Your task to perform on an android device: Open display settings Image 0: 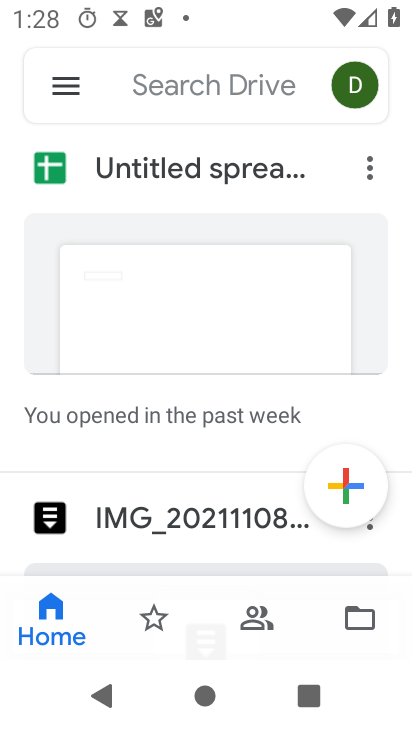
Step 0: press home button
Your task to perform on an android device: Open display settings Image 1: 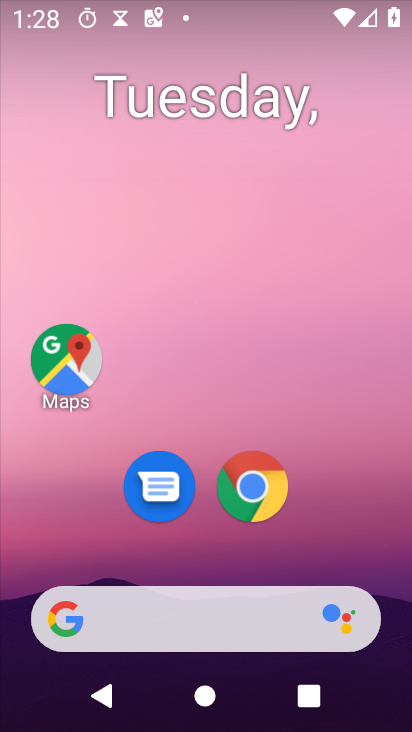
Step 1: drag from (358, 537) to (269, 144)
Your task to perform on an android device: Open display settings Image 2: 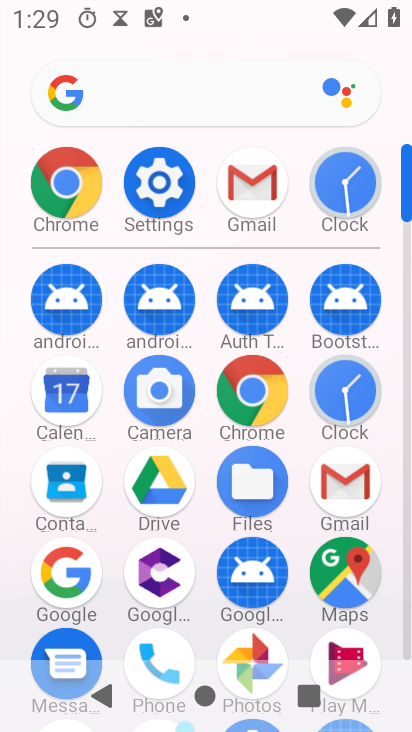
Step 2: click (142, 197)
Your task to perform on an android device: Open display settings Image 3: 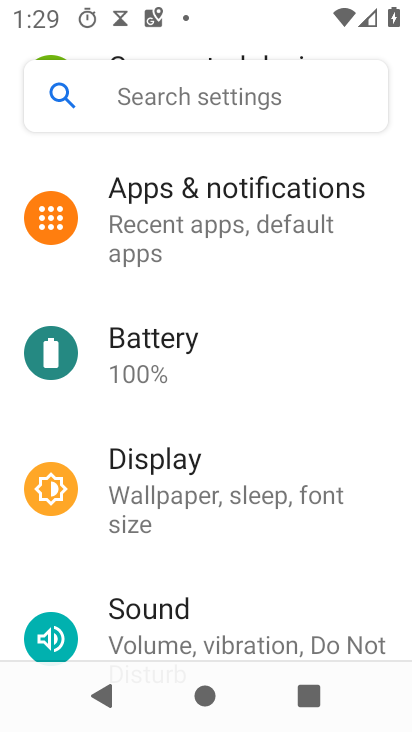
Step 3: click (233, 508)
Your task to perform on an android device: Open display settings Image 4: 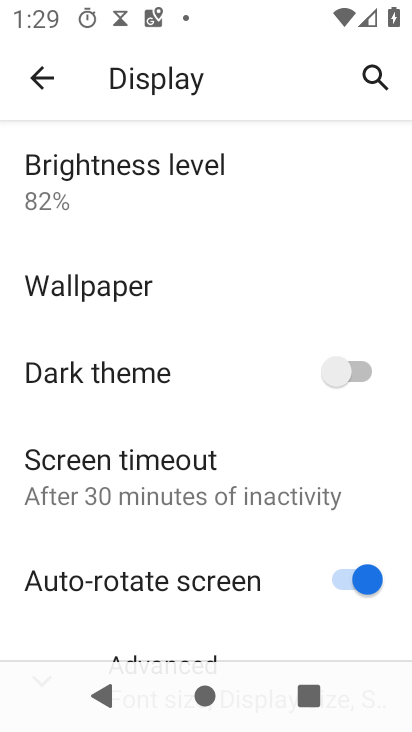
Step 4: task complete